Your task to perform on an android device: Look up the new steph curry shoes Image 0: 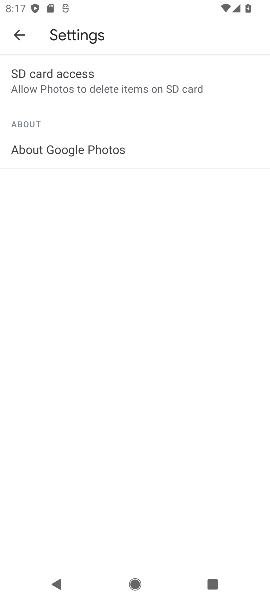
Step 0: press home button
Your task to perform on an android device: Look up the new steph curry shoes Image 1: 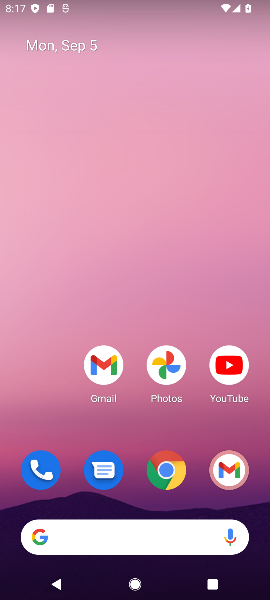
Step 1: click (100, 532)
Your task to perform on an android device: Look up the new steph curry shoes Image 2: 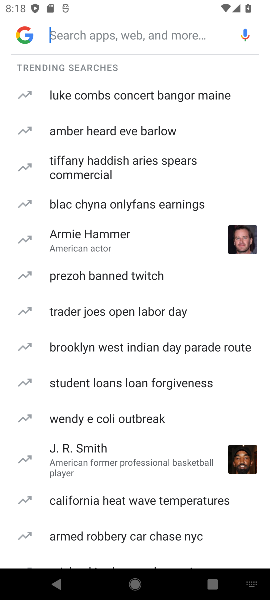
Step 2: type "new steph curry shoes"
Your task to perform on an android device: Look up the new steph curry shoes Image 3: 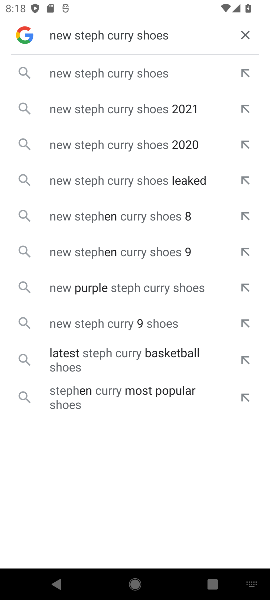
Step 3: click (128, 74)
Your task to perform on an android device: Look up the new steph curry shoes Image 4: 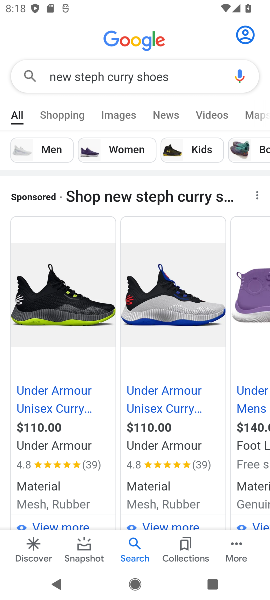
Step 4: task complete